Your task to perform on an android device: Search for seafood restaurants on Google Maps Image 0: 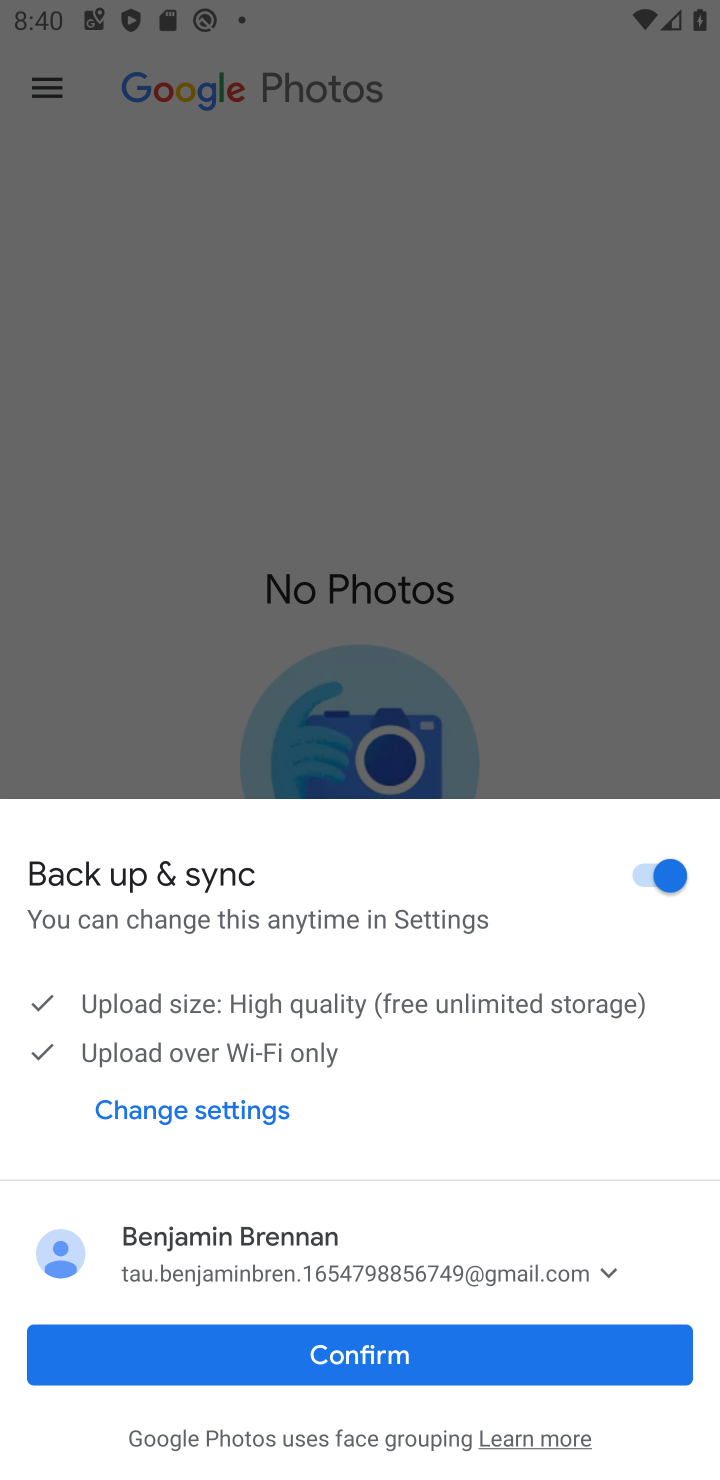
Step 0: press home button
Your task to perform on an android device: Search for seafood restaurants on Google Maps Image 1: 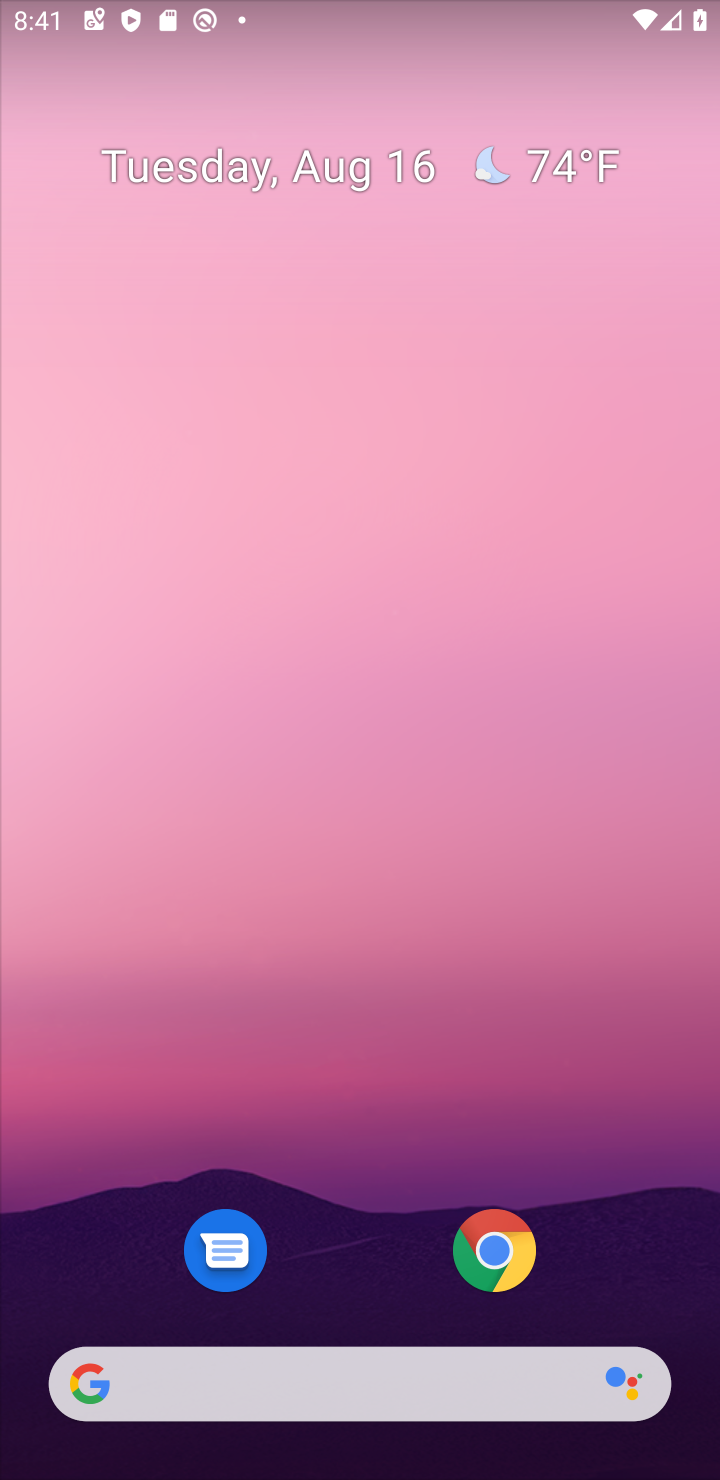
Step 1: drag from (376, 1298) to (401, 21)
Your task to perform on an android device: Search for seafood restaurants on Google Maps Image 2: 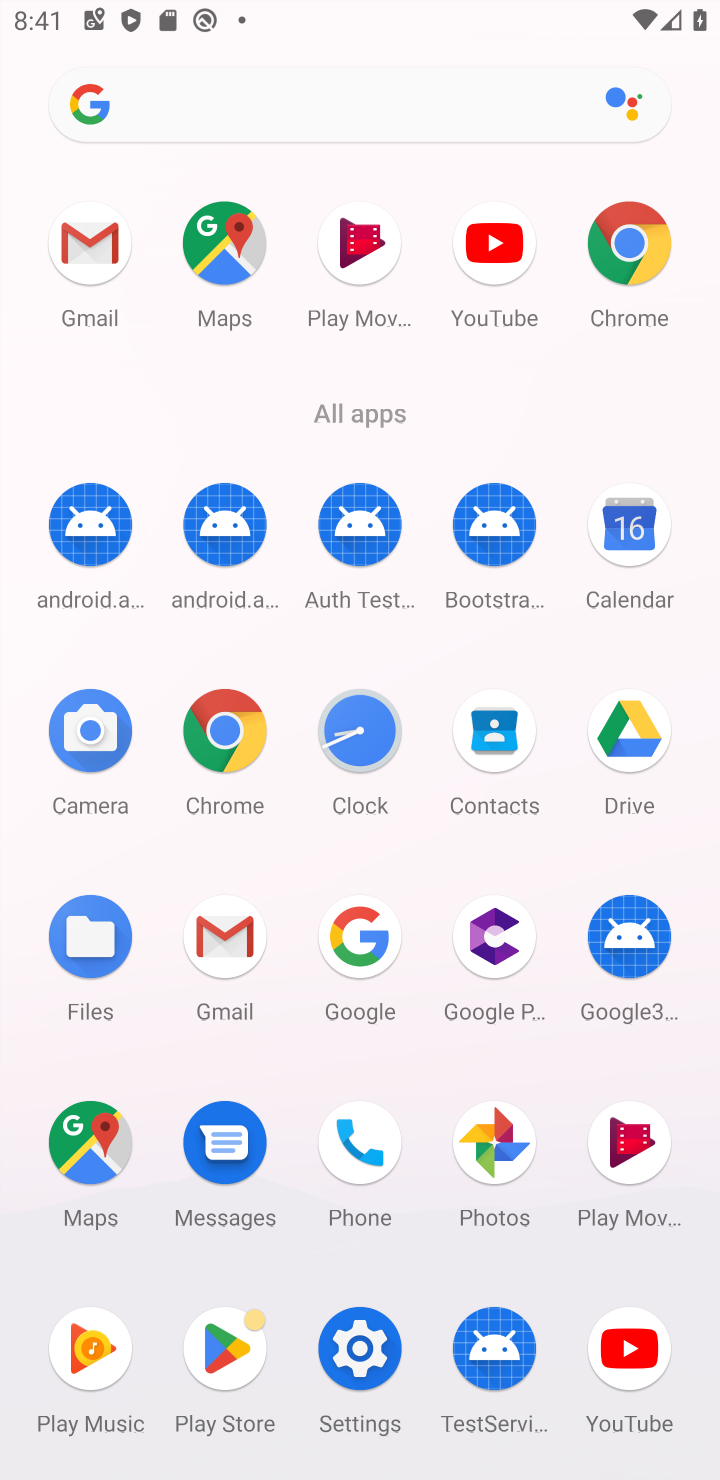
Step 2: click (85, 1154)
Your task to perform on an android device: Search for seafood restaurants on Google Maps Image 3: 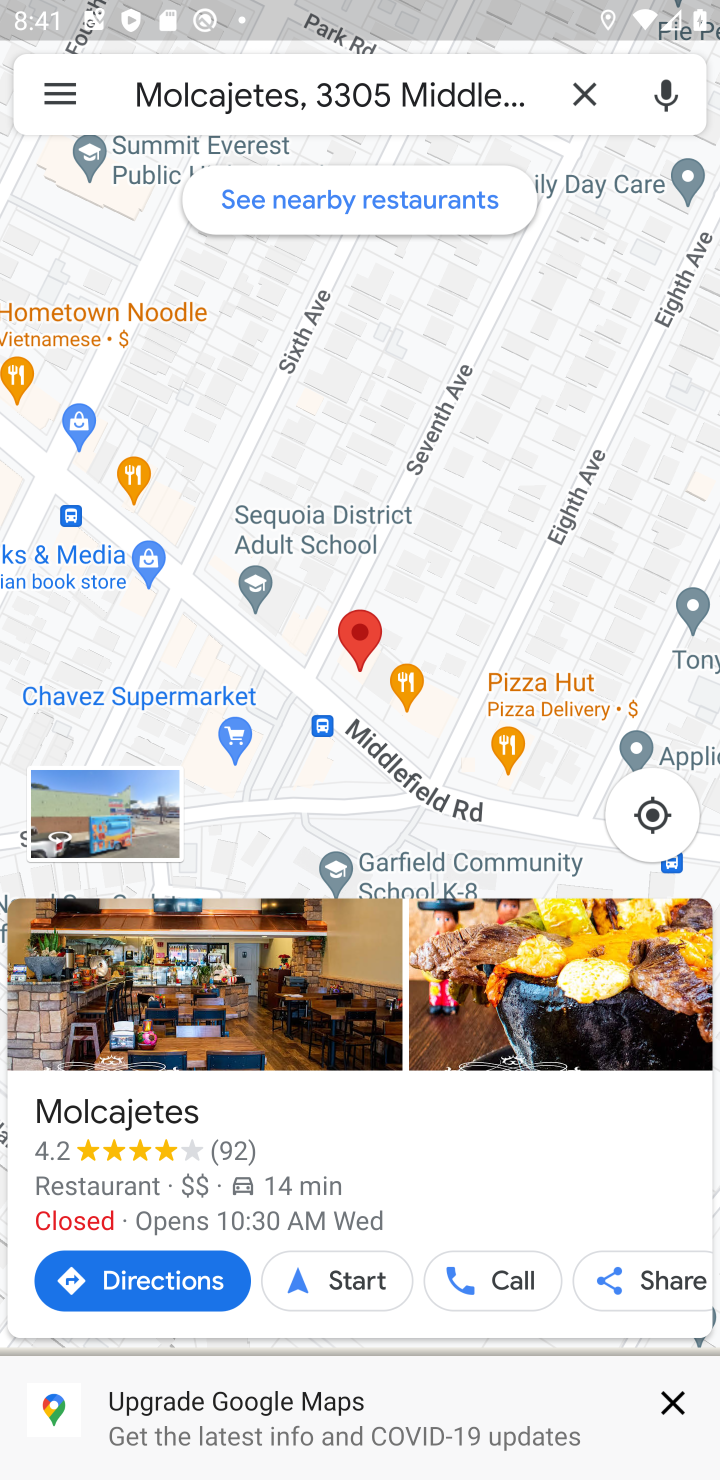
Step 3: click (584, 108)
Your task to perform on an android device: Search for seafood restaurants on Google Maps Image 4: 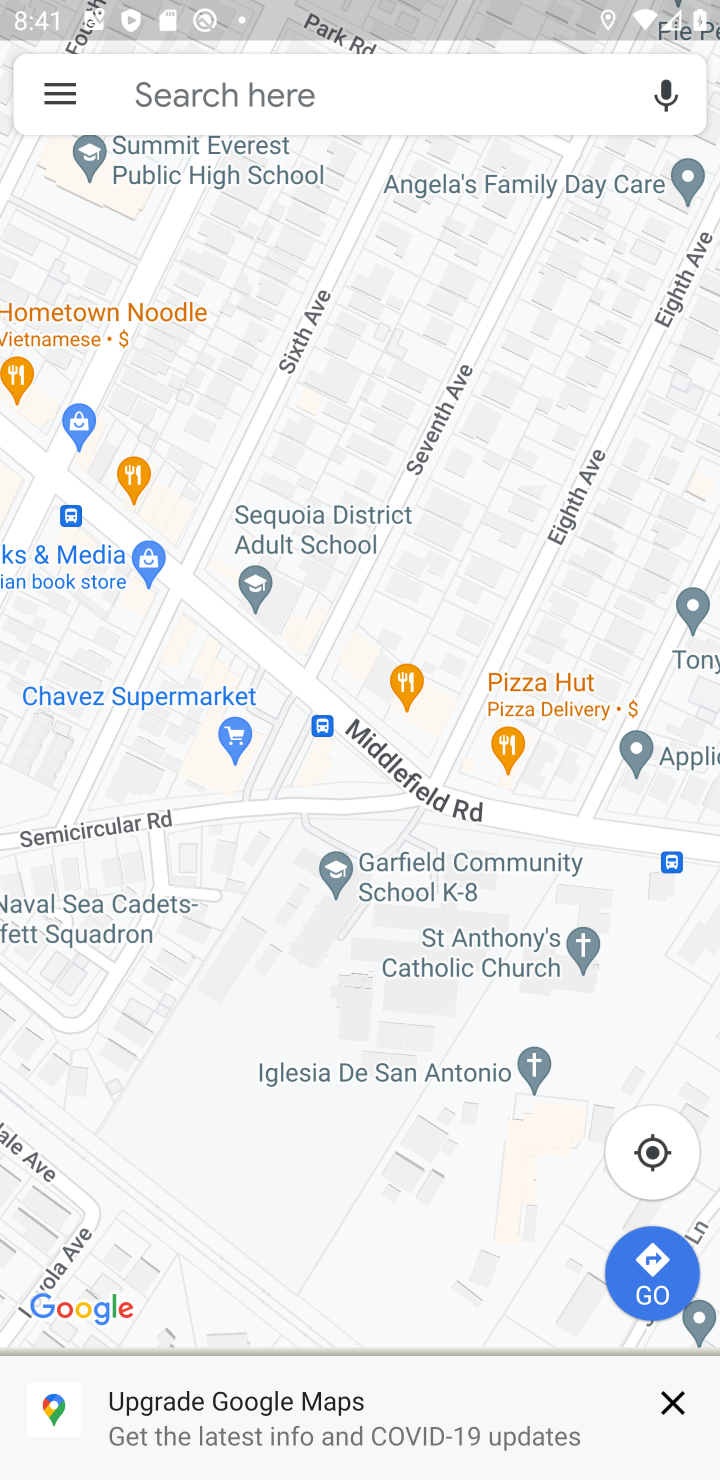
Step 4: click (412, 89)
Your task to perform on an android device: Search for seafood restaurants on Google Maps Image 5: 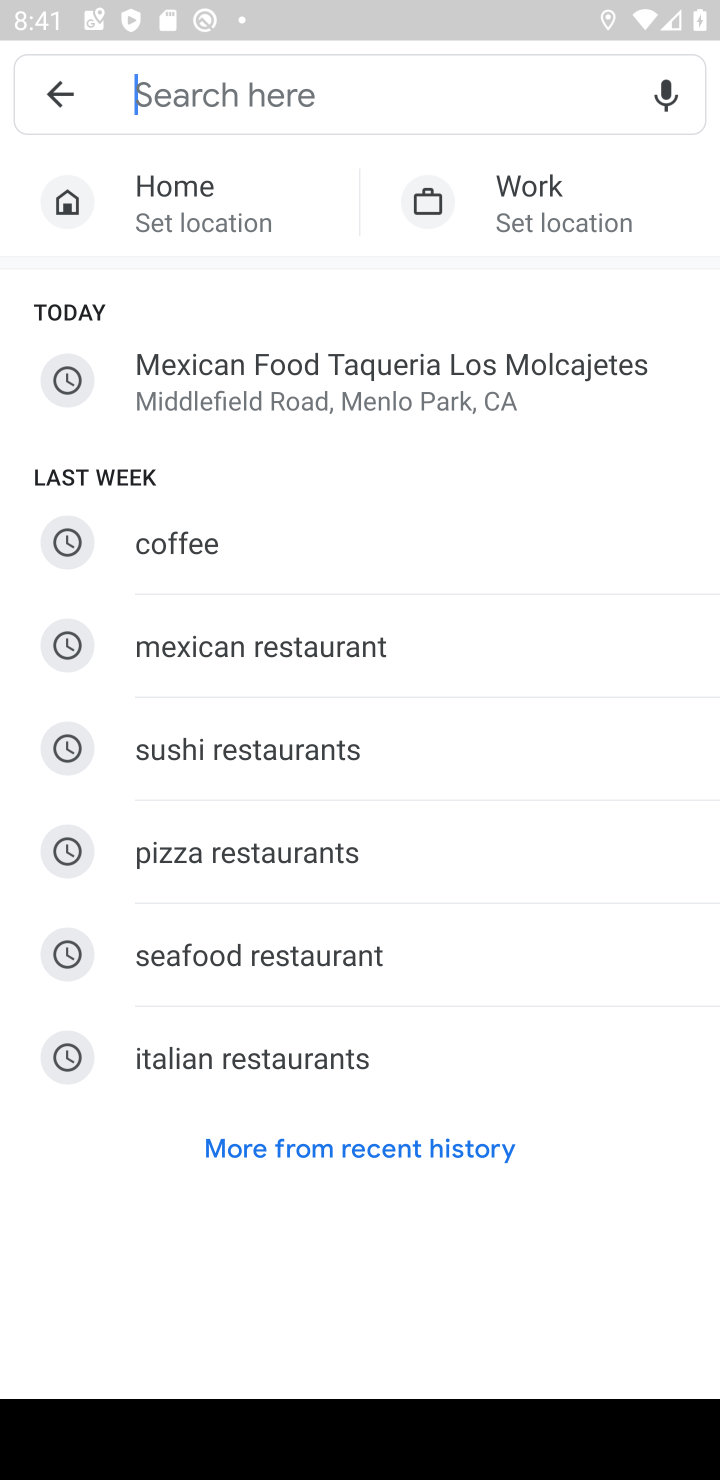
Step 5: click (289, 952)
Your task to perform on an android device: Search for seafood restaurants on Google Maps Image 6: 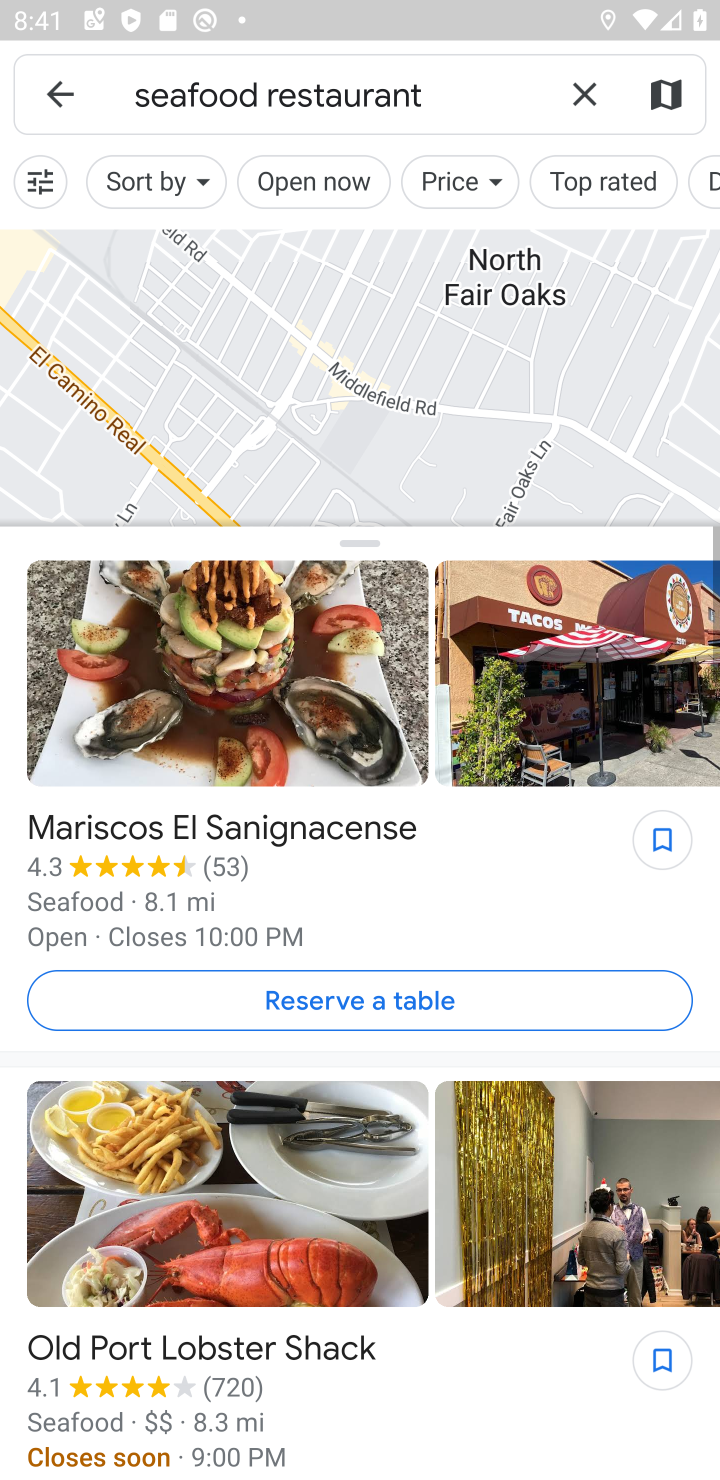
Step 6: task complete